Your task to perform on an android device: remove spam from my inbox in the gmail app Image 0: 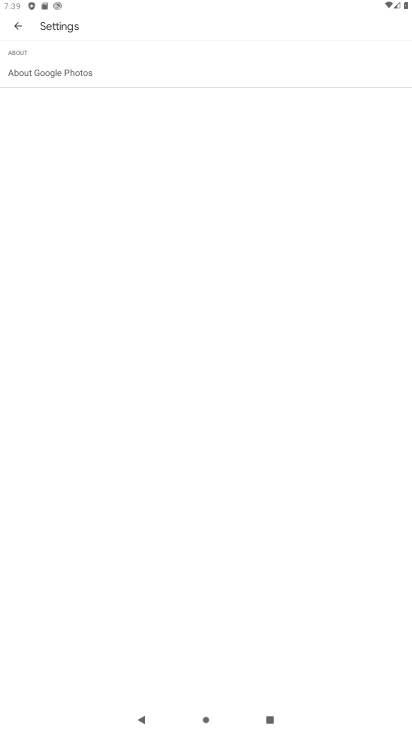
Step 0: press home button
Your task to perform on an android device: remove spam from my inbox in the gmail app Image 1: 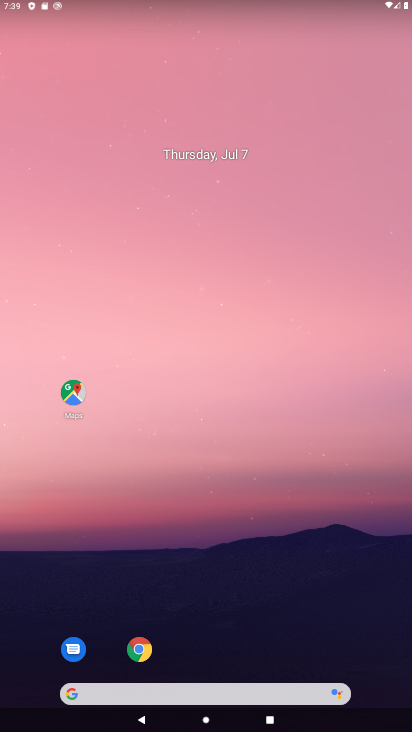
Step 1: drag from (203, 637) to (247, 2)
Your task to perform on an android device: remove spam from my inbox in the gmail app Image 2: 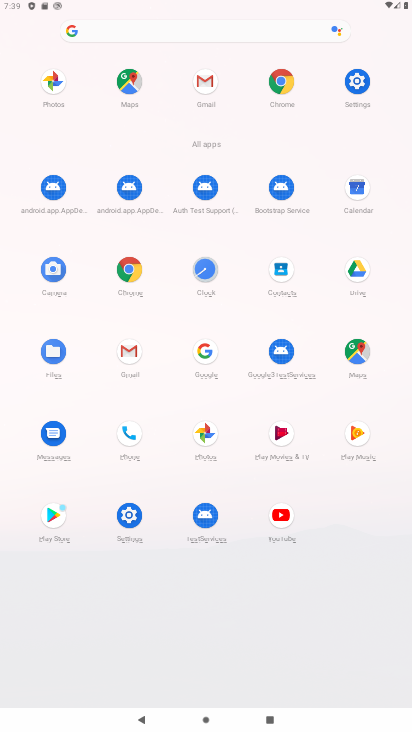
Step 2: click (134, 356)
Your task to perform on an android device: remove spam from my inbox in the gmail app Image 3: 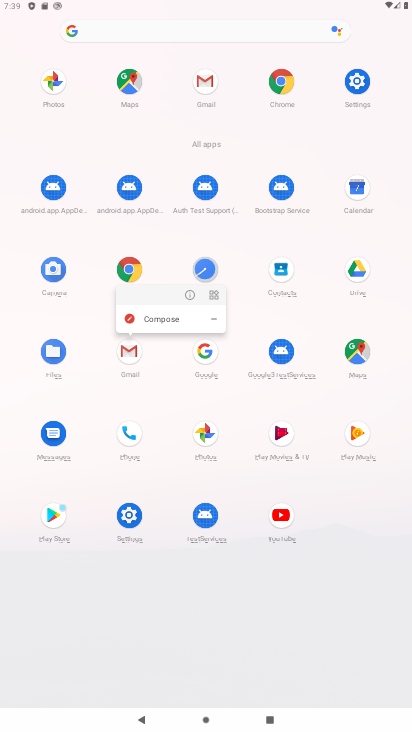
Step 3: click (135, 357)
Your task to perform on an android device: remove spam from my inbox in the gmail app Image 4: 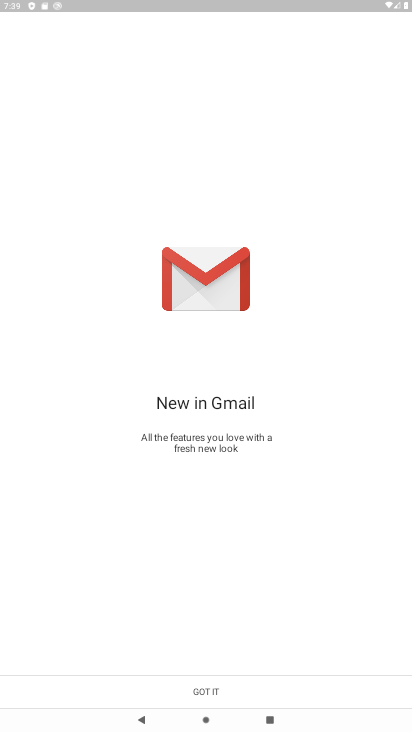
Step 4: click (215, 689)
Your task to perform on an android device: remove spam from my inbox in the gmail app Image 5: 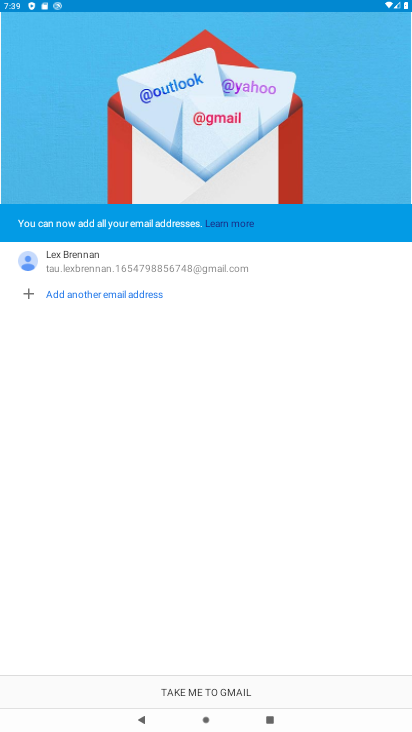
Step 5: click (215, 689)
Your task to perform on an android device: remove spam from my inbox in the gmail app Image 6: 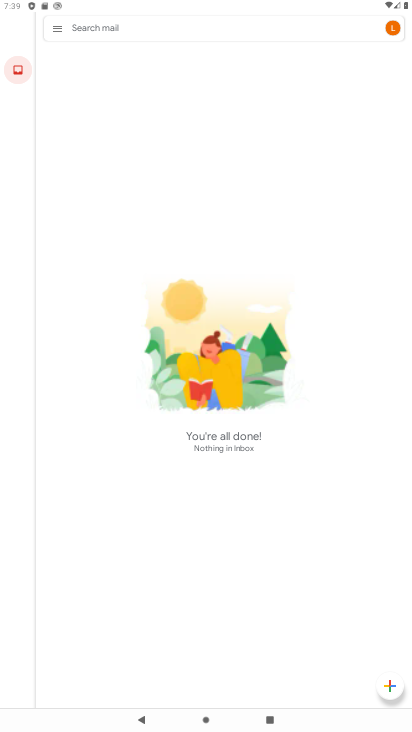
Step 6: click (53, 27)
Your task to perform on an android device: remove spam from my inbox in the gmail app Image 7: 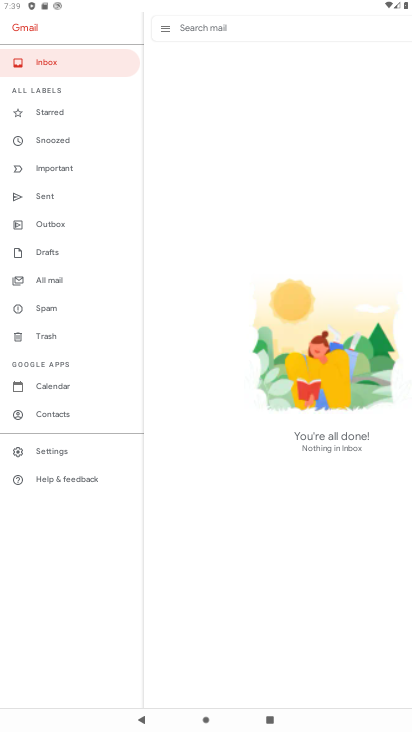
Step 7: click (56, 310)
Your task to perform on an android device: remove spam from my inbox in the gmail app Image 8: 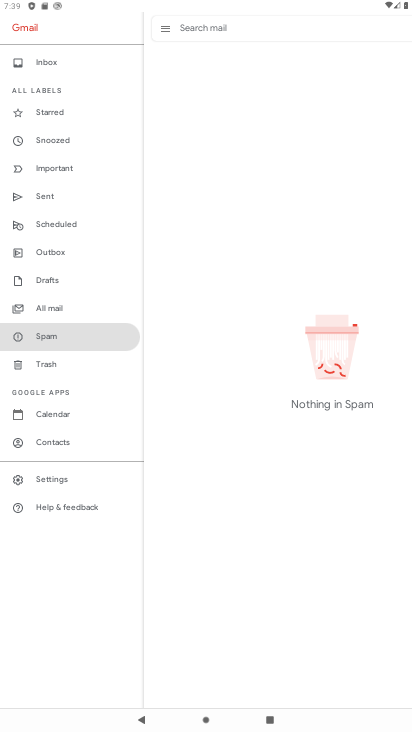
Step 8: task complete